Your task to perform on an android device: turn off location Image 0: 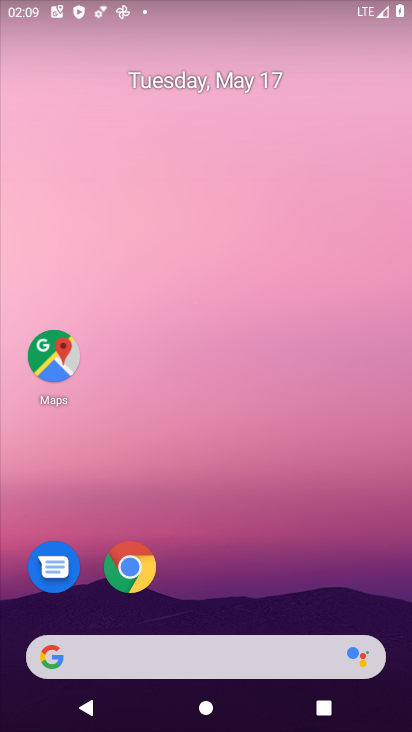
Step 0: drag from (400, 672) to (260, 78)
Your task to perform on an android device: turn off location Image 1: 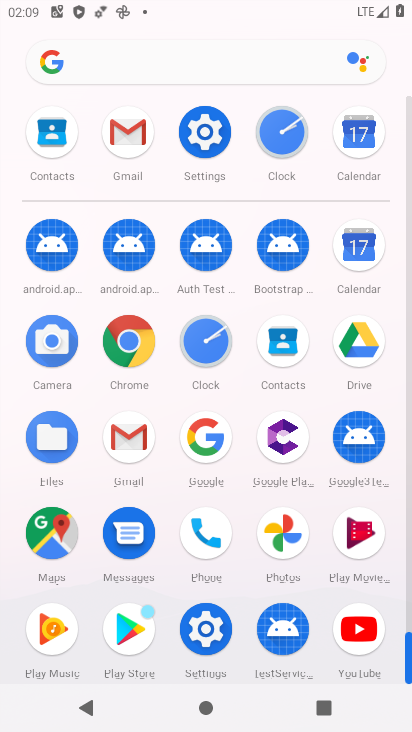
Step 1: click (407, 621)
Your task to perform on an android device: turn off location Image 2: 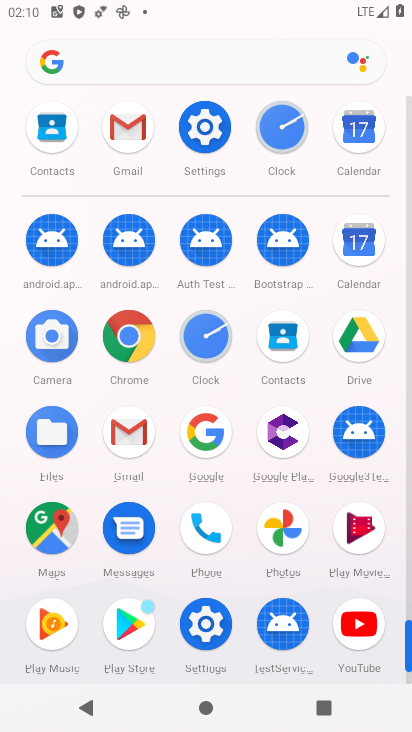
Step 2: click (208, 627)
Your task to perform on an android device: turn off location Image 3: 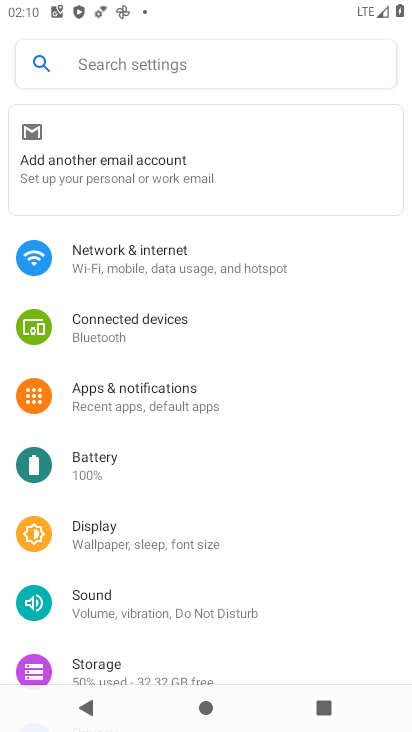
Step 3: drag from (245, 564) to (327, 114)
Your task to perform on an android device: turn off location Image 4: 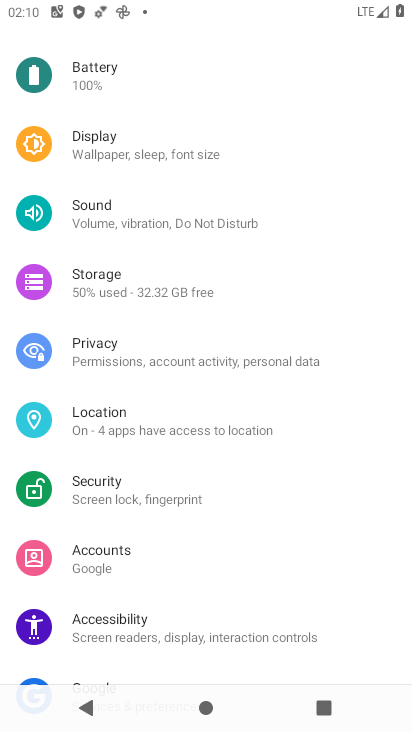
Step 4: click (90, 409)
Your task to perform on an android device: turn off location Image 5: 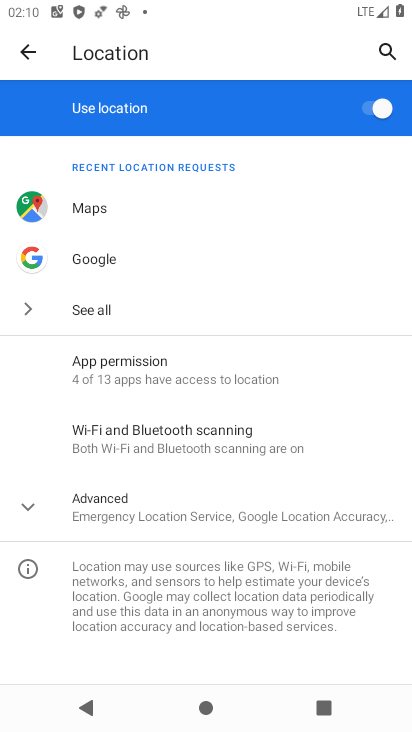
Step 5: click (360, 102)
Your task to perform on an android device: turn off location Image 6: 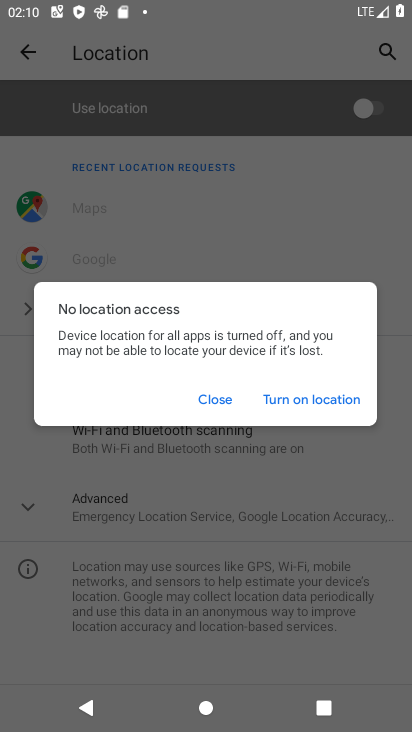
Step 6: task complete